Your task to perform on an android device: delete the emails in spam in the gmail app Image 0: 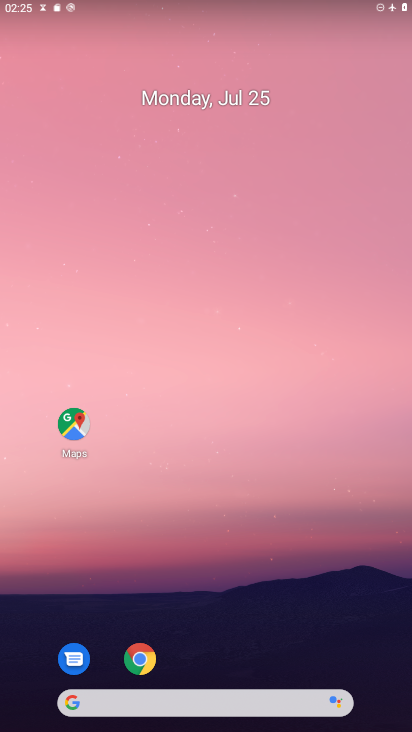
Step 0: drag from (258, 606) to (228, 32)
Your task to perform on an android device: delete the emails in spam in the gmail app Image 1: 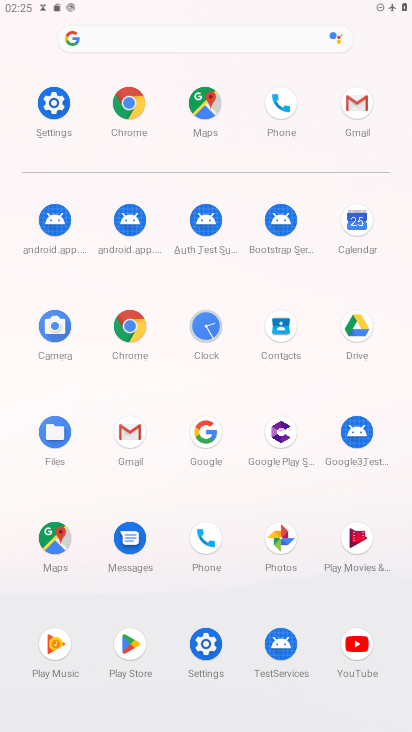
Step 1: click (358, 102)
Your task to perform on an android device: delete the emails in spam in the gmail app Image 2: 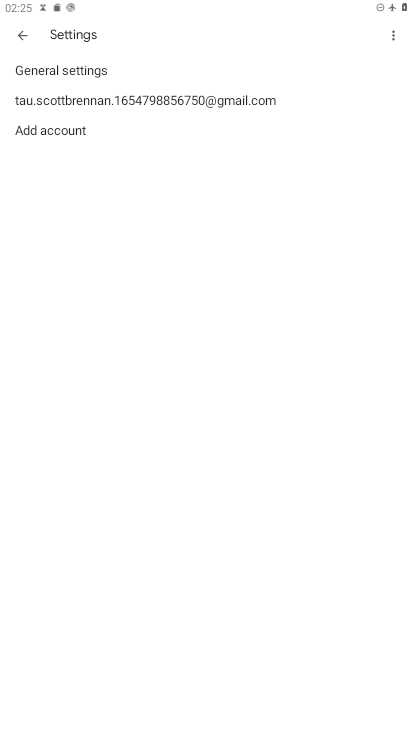
Step 2: click (20, 39)
Your task to perform on an android device: delete the emails in spam in the gmail app Image 3: 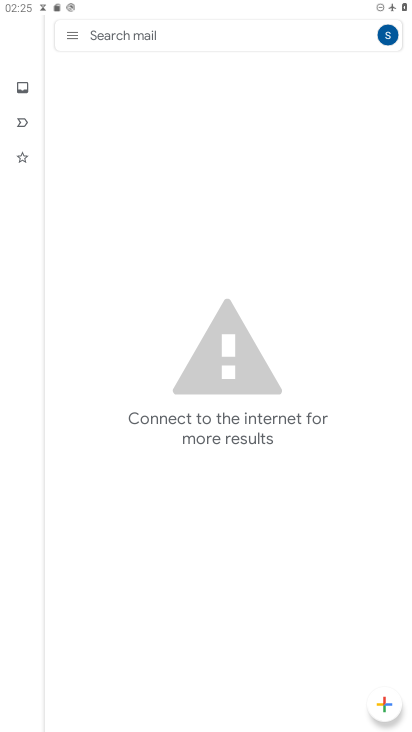
Step 3: click (58, 26)
Your task to perform on an android device: delete the emails in spam in the gmail app Image 4: 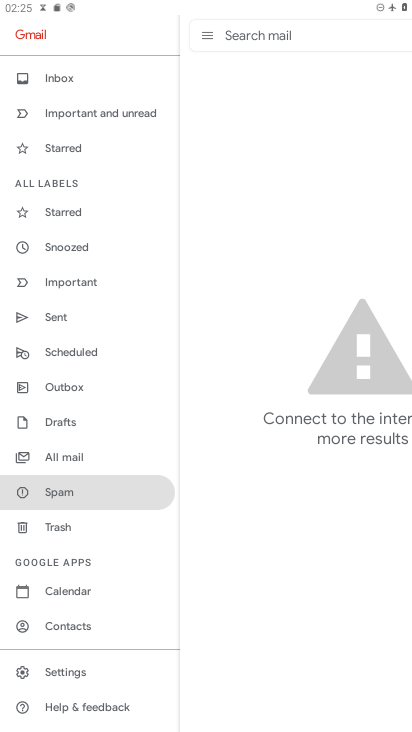
Step 4: click (74, 478)
Your task to perform on an android device: delete the emails in spam in the gmail app Image 5: 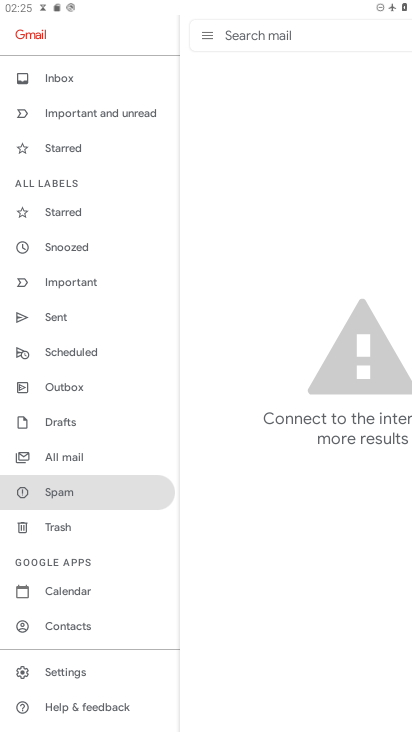
Step 5: task complete